Your task to perform on an android device: turn off location Image 0: 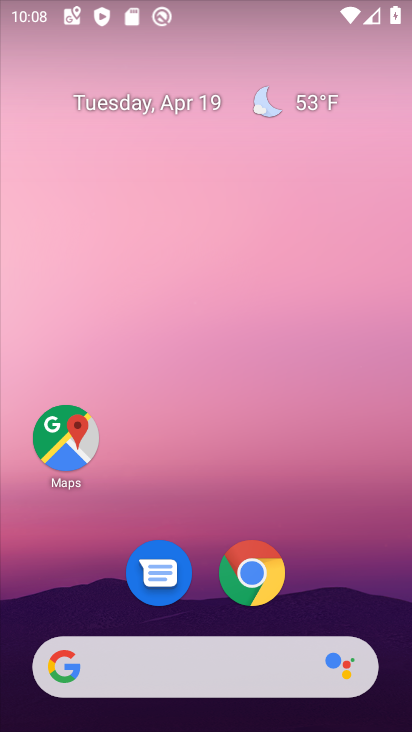
Step 0: drag from (211, 723) to (203, 57)
Your task to perform on an android device: turn off location Image 1: 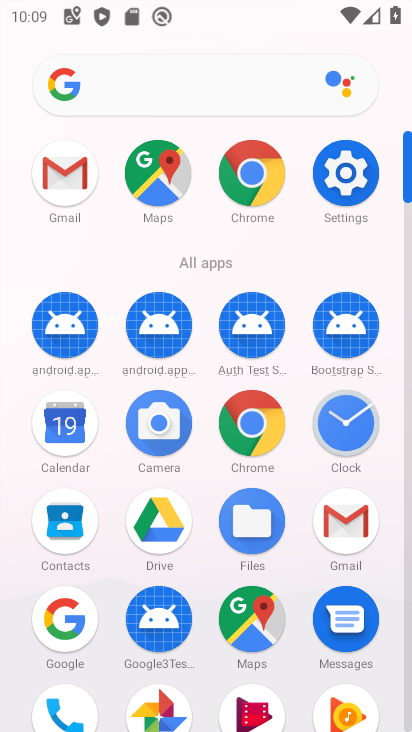
Step 1: click (351, 175)
Your task to perform on an android device: turn off location Image 2: 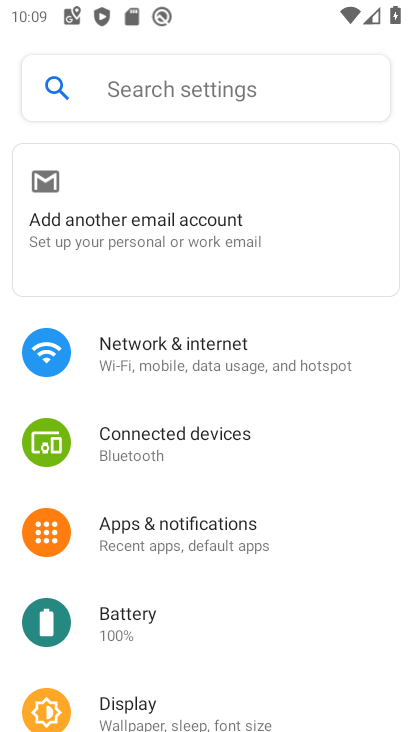
Step 2: drag from (229, 693) to (224, 297)
Your task to perform on an android device: turn off location Image 3: 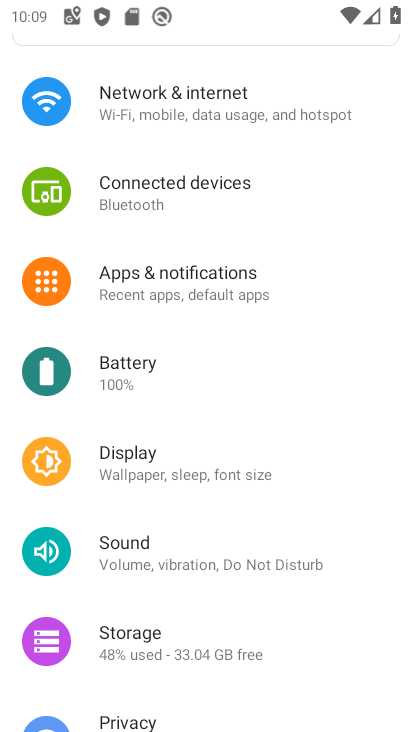
Step 3: drag from (200, 689) to (198, 238)
Your task to perform on an android device: turn off location Image 4: 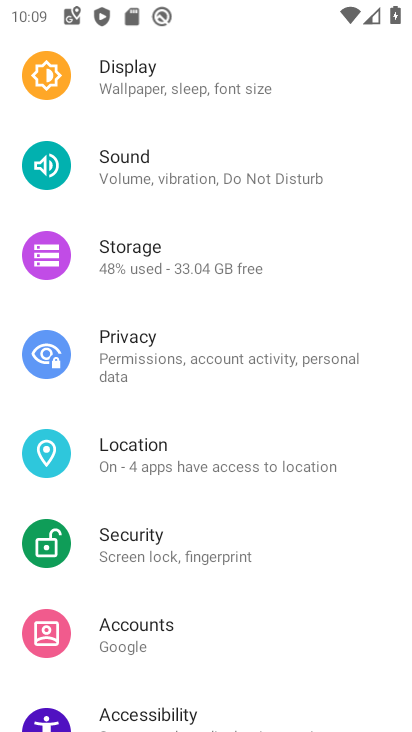
Step 4: click (144, 449)
Your task to perform on an android device: turn off location Image 5: 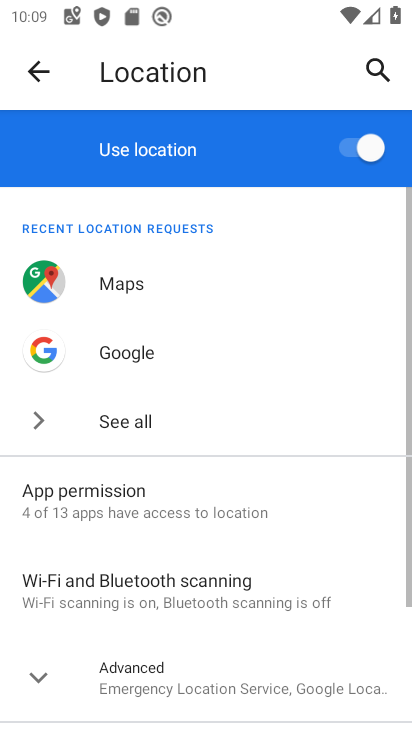
Step 5: click (350, 145)
Your task to perform on an android device: turn off location Image 6: 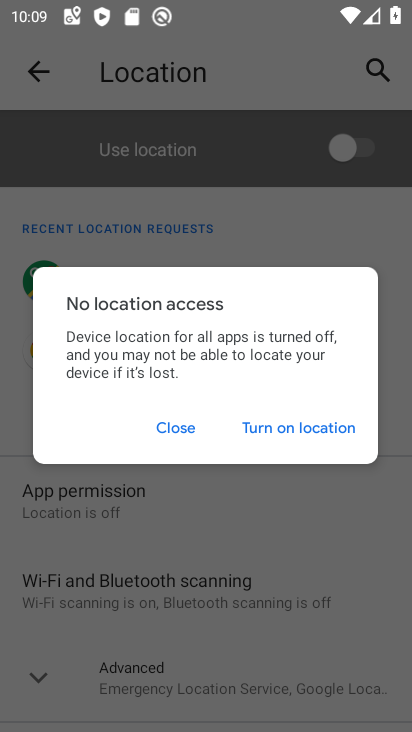
Step 6: click (179, 423)
Your task to perform on an android device: turn off location Image 7: 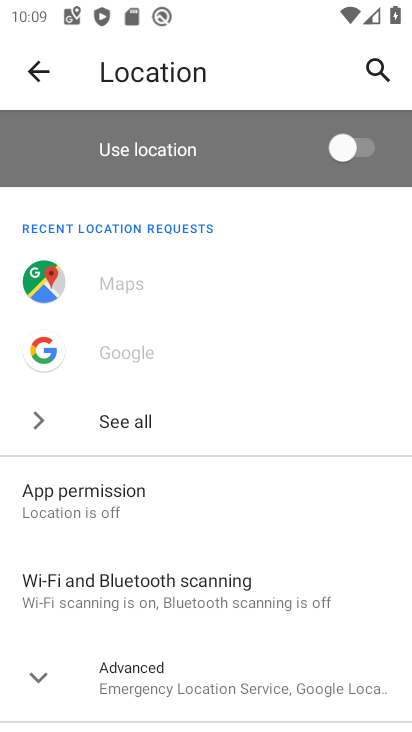
Step 7: task complete